Your task to perform on an android device: make emails show in primary in the gmail app Image 0: 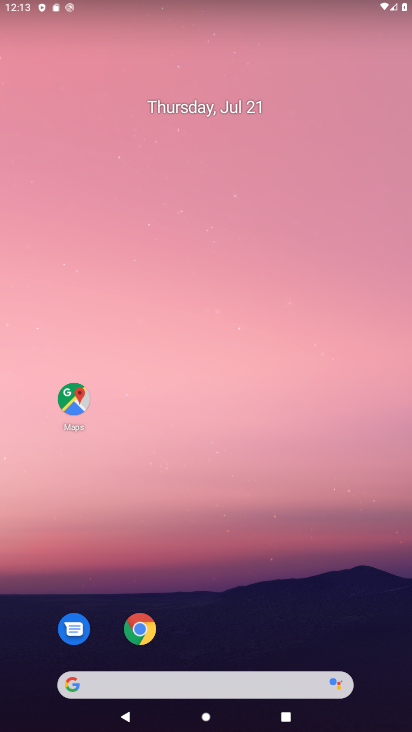
Step 0: drag from (282, 586) to (309, 79)
Your task to perform on an android device: make emails show in primary in the gmail app Image 1: 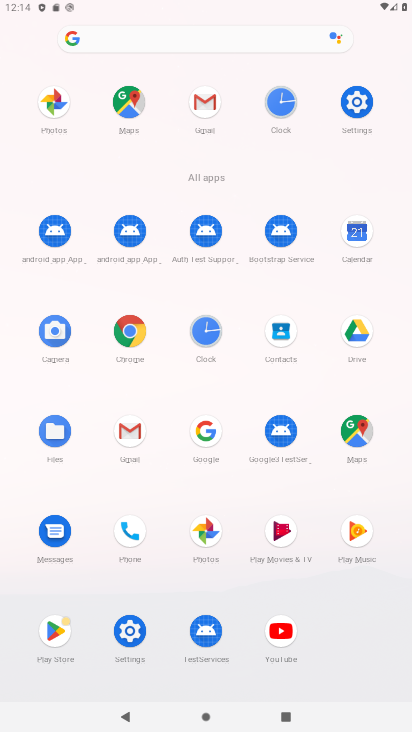
Step 1: click (128, 429)
Your task to perform on an android device: make emails show in primary in the gmail app Image 2: 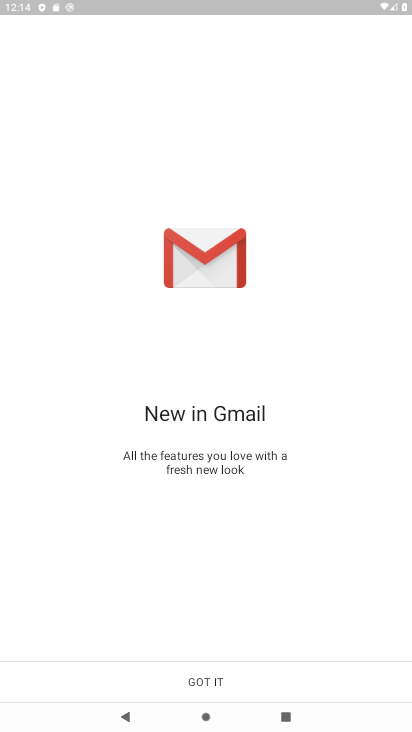
Step 2: click (191, 679)
Your task to perform on an android device: make emails show in primary in the gmail app Image 3: 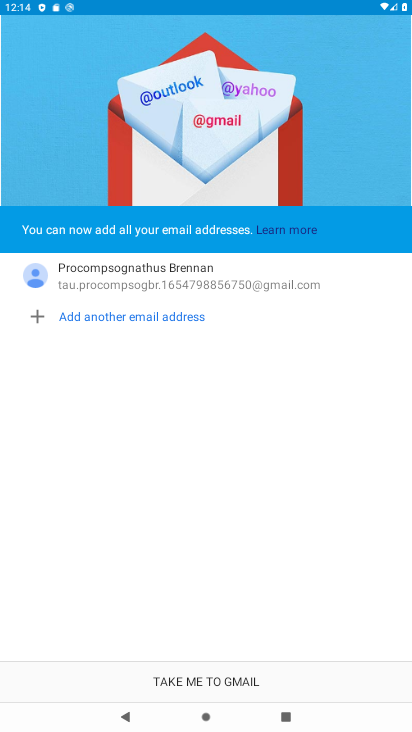
Step 3: click (191, 679)
Your task to perform on an android device: make emails show in primary in the gmail app Image 4: 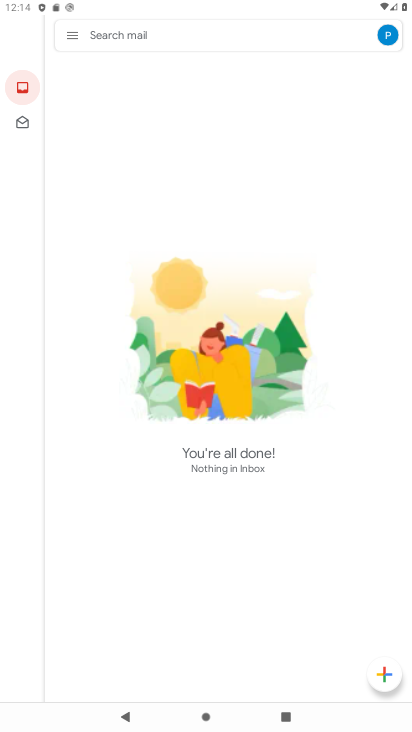
Step 4: click (72, 38)
Your task to perform on an android device: make emails show in primary in the gmail app Image 5: 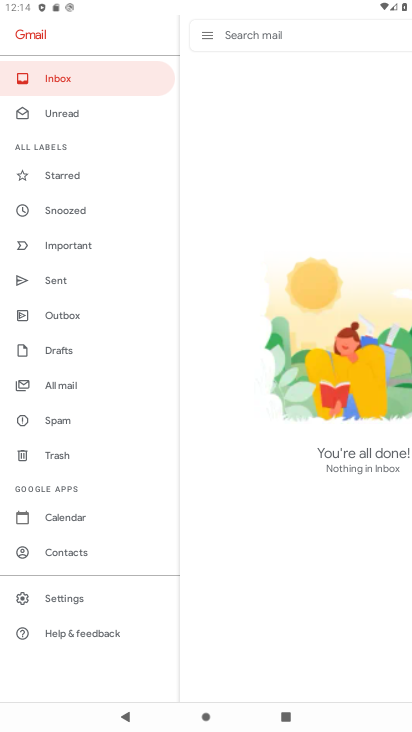
Step 5: click (103, 606)
Your task to perform on an android device: make emails show in primary in the gmail app Image 6: 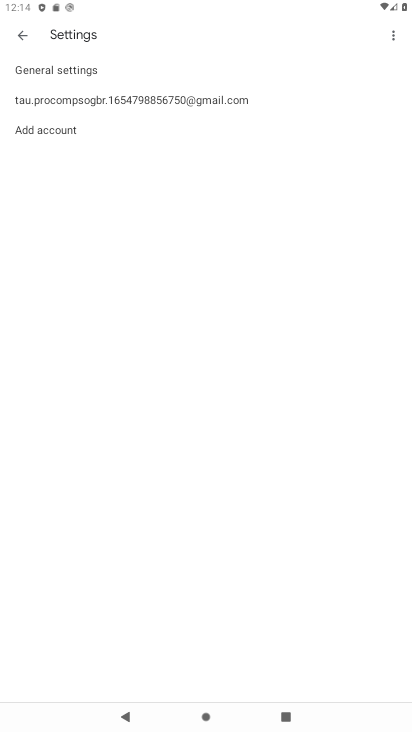
Step 6: click (218, 103)
Your task to perform on an android device: make emails show in primary in the gmail app Image 7: 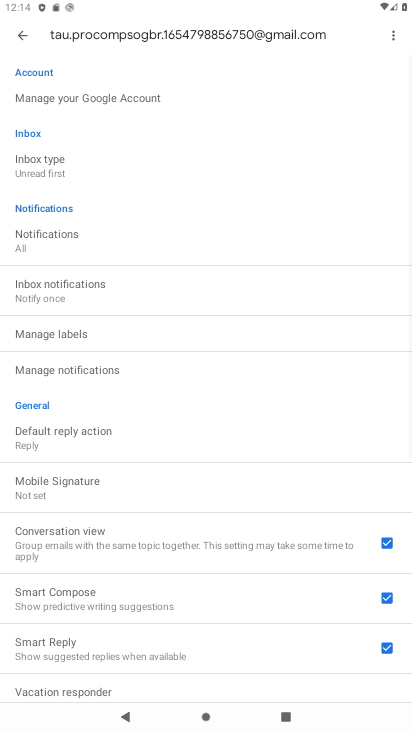
Step 7: drag from (265, 451) to (280, 379)
Your task to perform on an android device: make emails show in primary in the gmail app Image 8: 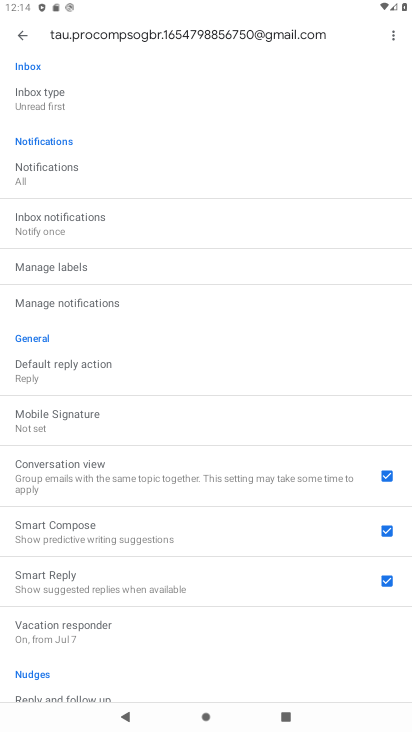
Step 8: drag from (272, 500) to (278, 298)
Your task to perform on an android device: make emails show in primary in the gmail app Image 9: 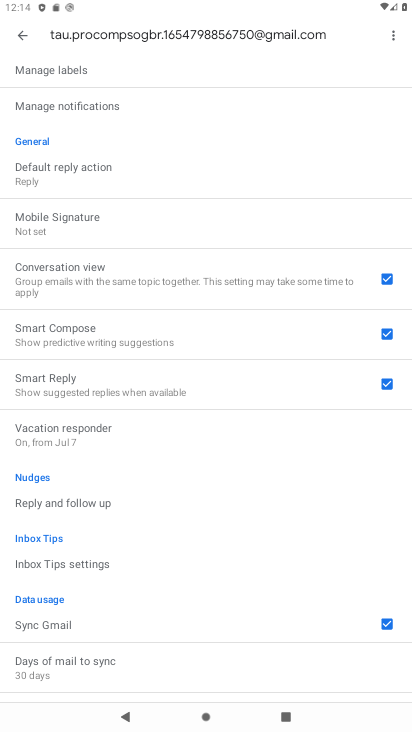
Step 9: drag from (273, 472) to (287, 329)
Your task to perform on an android device: make emails show in primary in the gmail app Image 10: 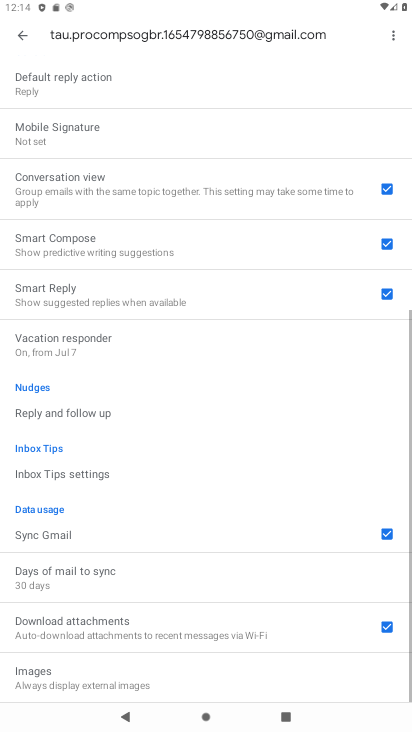
Step 10: drag from (285, 254) to (268, 353)
Your task to perform on an android device: make emails show in primary in the gmail app Image 11: 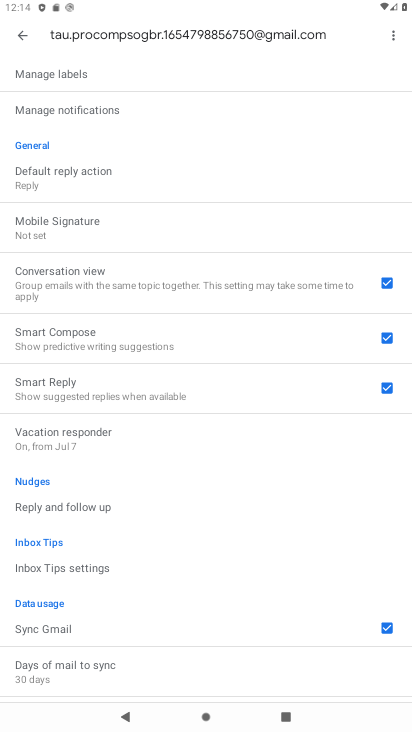
Step 11: drag from (267, 233) to (267, 322)
Your task to perform on an android device: make emails show in primary in the gmail app Image 12: 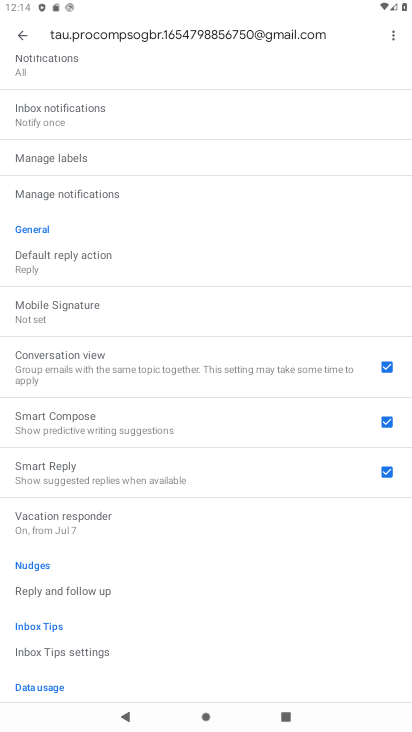
Step 12: drag from (266, 188) to (269, 363)
Your task to perform on an android device: make emails show in primary in the gmail app Image 13: 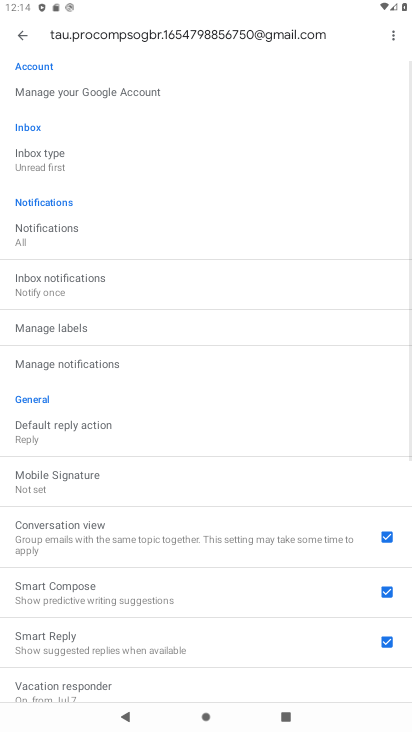
Step 13: drag from (251, 220) to (242, 345)
Your task to perform on an android device: make emails show in primary in the gmail app Image 14: 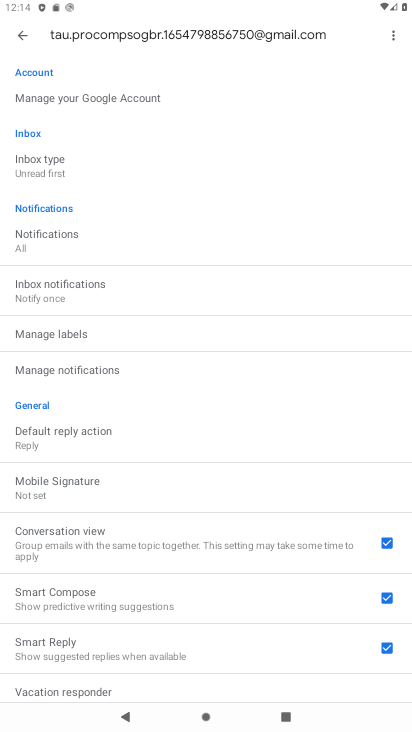
Step 14: click (86, 170)
Your task to perform on an android device: make emails show in primary in the gmail app Image 15: 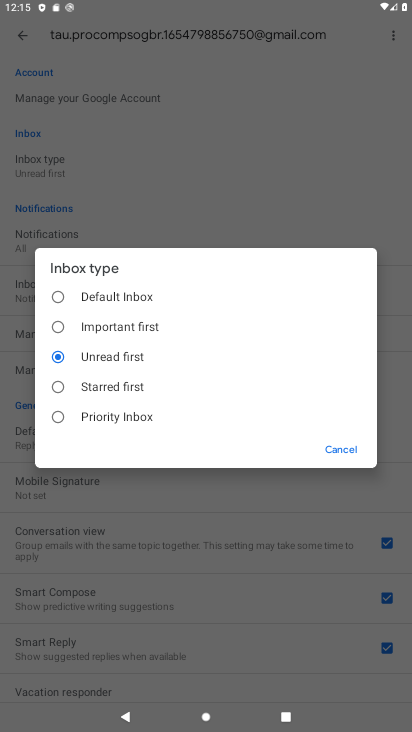
Step 15: click (110, 299)
Your task to perform on an android device: make emails show in primary in the gmail app Image 16: 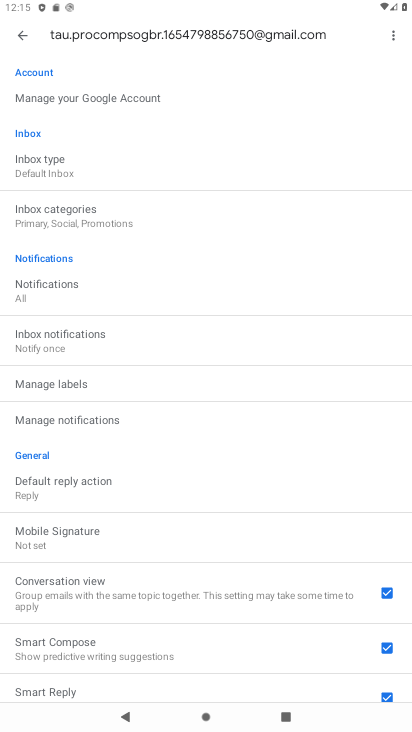
Step 16: click (112, 212)
Your task to perform on an android device: make emails show in primary in the gmail app Image 17: 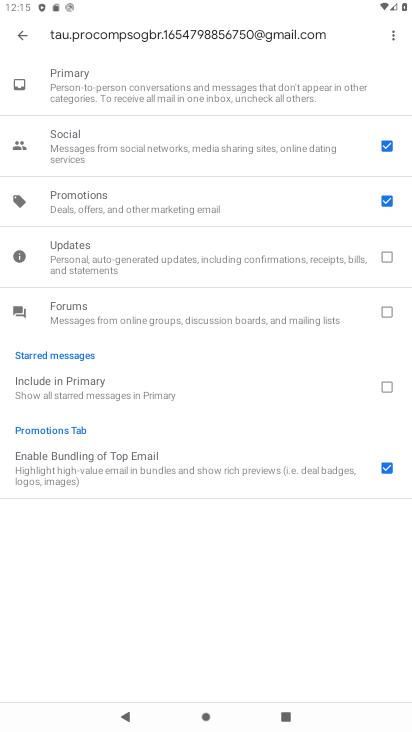
Step 17: click (387, 208)
Your task to perform on an android device: make emails show in primary in the gmail app Image 18: 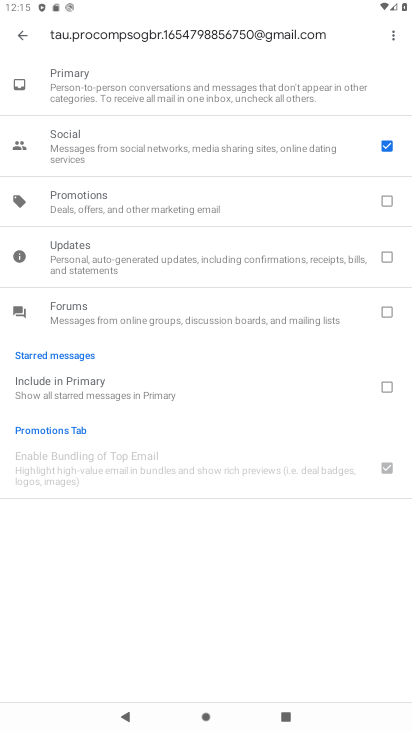
Step 18: click (386, 149)
Your task to perform on an android device: make emails show in primary in the gmail app Image 19: 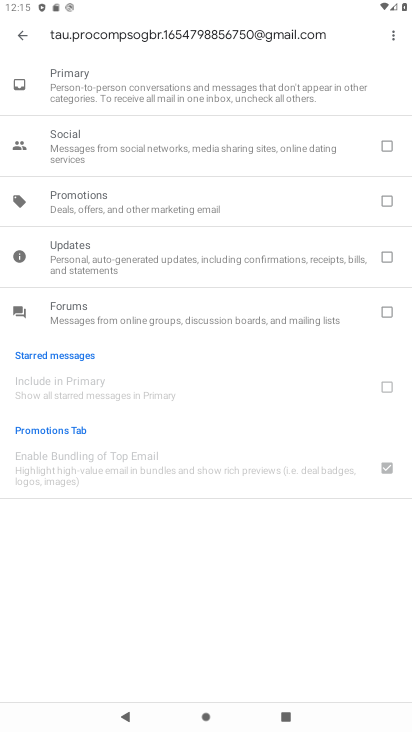
Step 19: task complete